Your task to perform on an android device: Open the calendar app, open the side menu, and click the "Day" option Image 0: 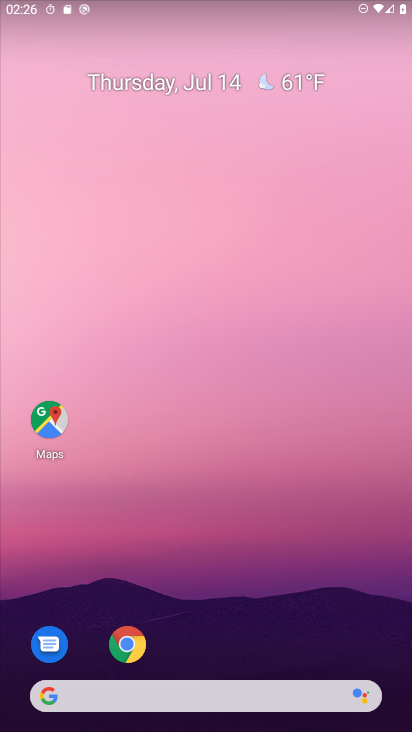
Step 0: drag from (199, 538) to (189, 143)
Your task to perform on an android device: Open the calendar app, open the side menu, and click the "Day" option Image 1: 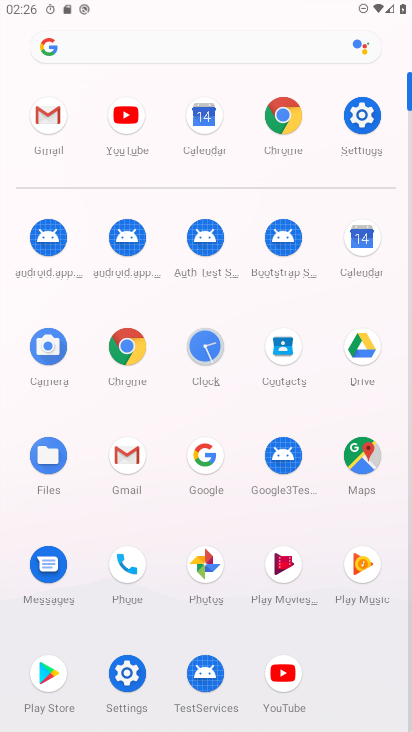
Step 1: click (365, 241)
Your task to perform on an android device: Open the calendar app, open the side menu, and click the "Day" option Image 2: 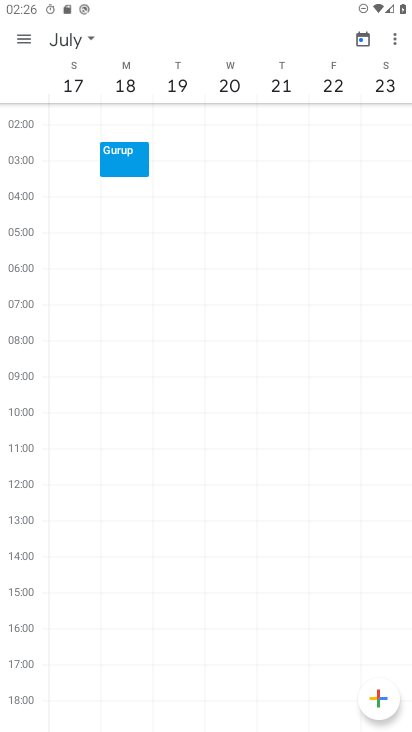
Step 2: click (28, 42)
Your task to perform on an android device: Open the calendar app, open the side menu, and click the "Day" option Image 3: 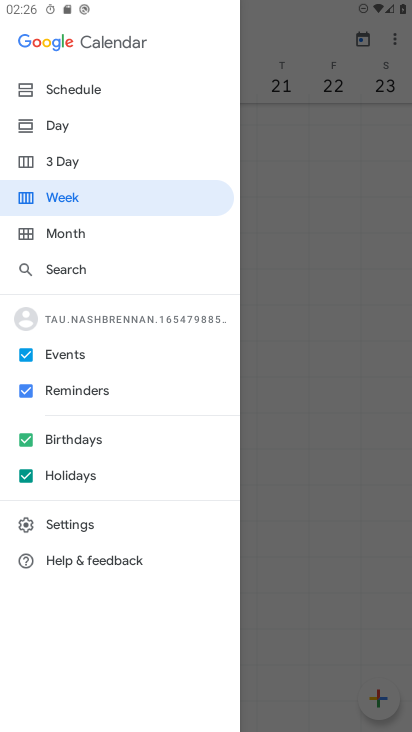
Step 3: click (61, 134)
Your task to perform on an android device: Open the calendar app, open the side menu, and click the "Day" option Image 4: 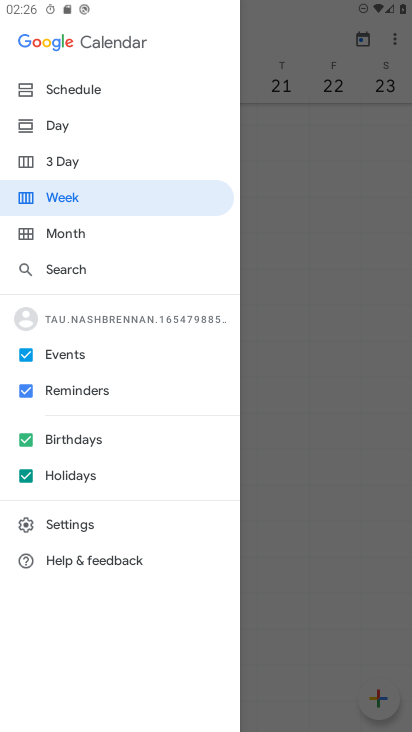
Step 4: click (62, 125)
Your task to perform on an android device: Open the calendar app, open the side menu, and click the "Day" option Image 5: 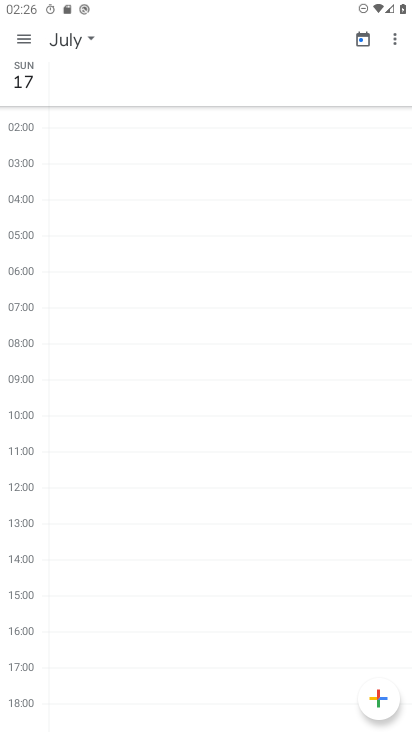
Step 5: task complete